Your task to perform on an android device: change alarm snooze length Image 0: 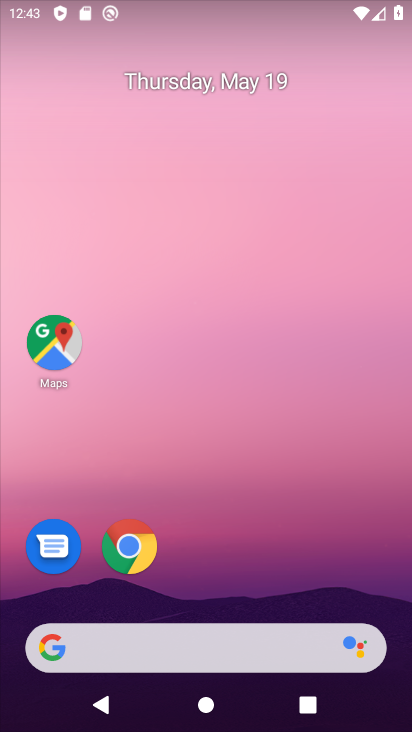
Step 0: drag from (210, 555) to (288, 41)
Your task to perform on an android device: change alarm snooze length Image 1: 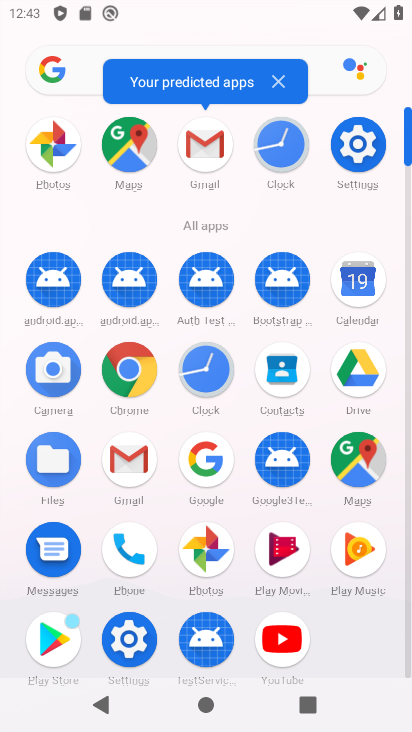
Step 1: click (270, 147)
Your task to perform on an android device: change alarm snooze length Image 2: 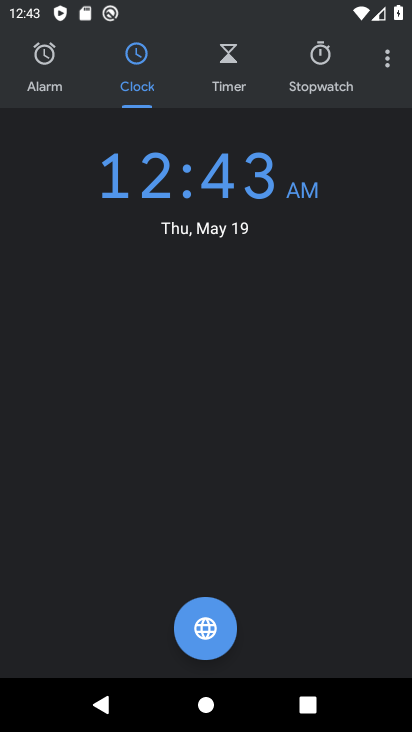
Step 2: click (381, 53)
Your task to perform on an android device: change alarm snooze length Image 3: 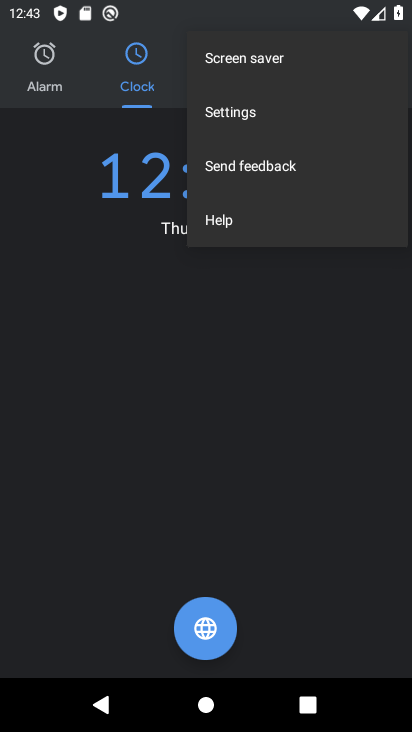
Step 3: click (293, 112)
Your task to perform on an android device: change alarm snooze length Image 4: 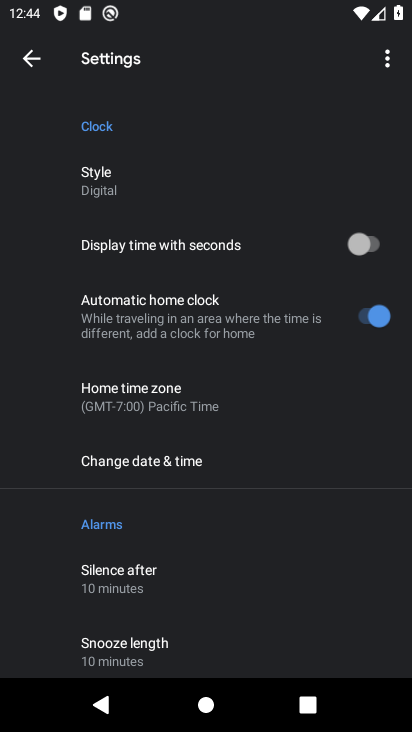
Step 4: click (163, 644)
Your task to perform on an android device: change alarm snooze length Image 5: 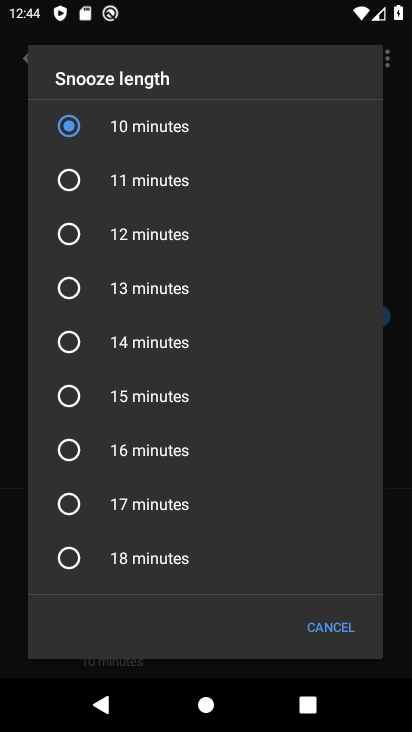
Step 5: click (167, 548)
Your task to perform on an android device: change alarm snooze length Image 6: 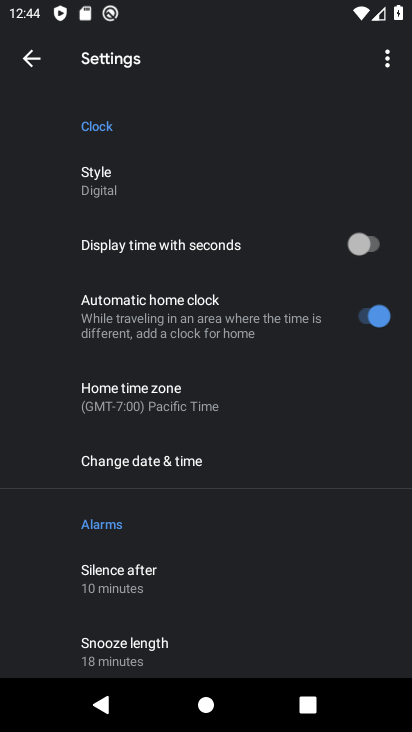
Step 6: task complete